Your task to perform on an android device: uninstall "Skype" Image 0: 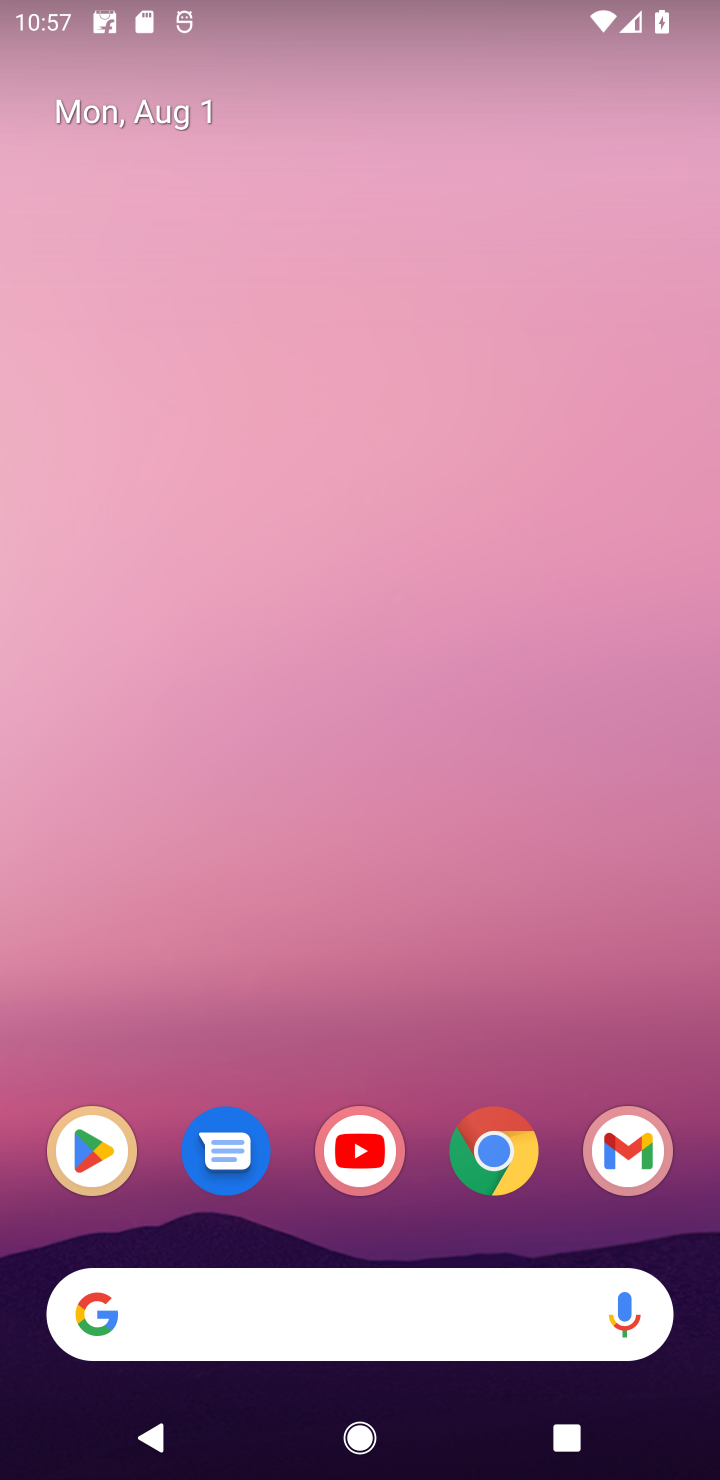
Step 0: click (80, 1158)
Your task to perform on an android device: uninstall "Skype" Image 1: 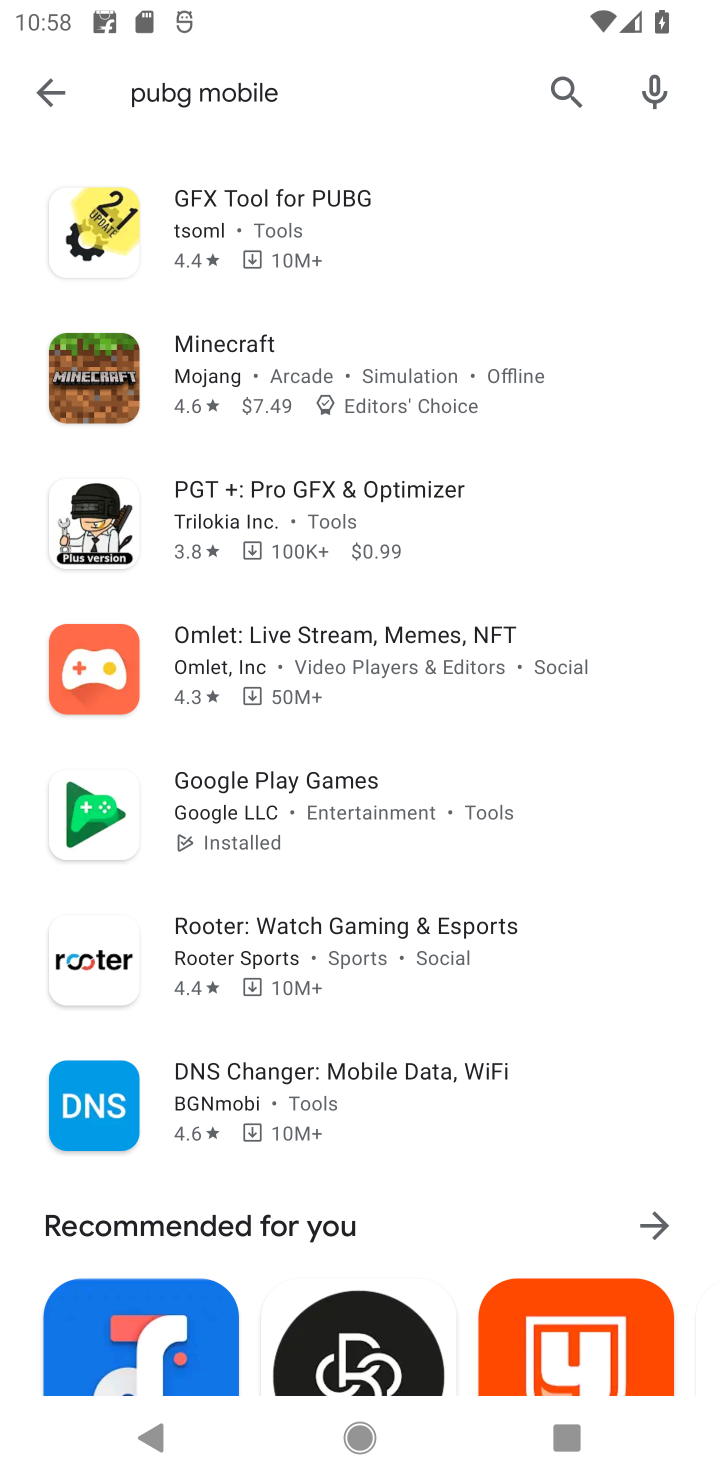
Step 1: click (556, 84)
Your task to perform on an android device: uninstall "Skype" Image 2: 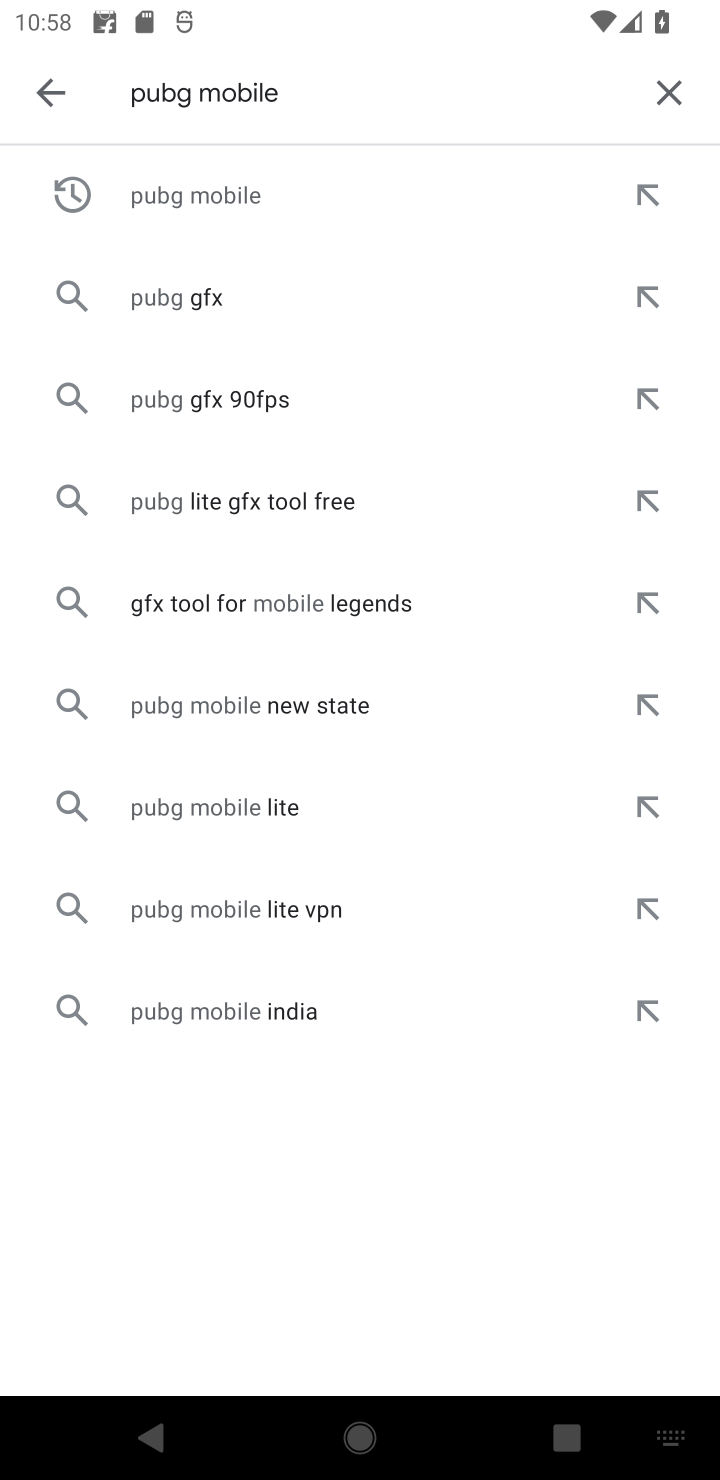
Step 2: click (658, 101)
Your task to perform on an android device: uninstall "Skype" Image 3: 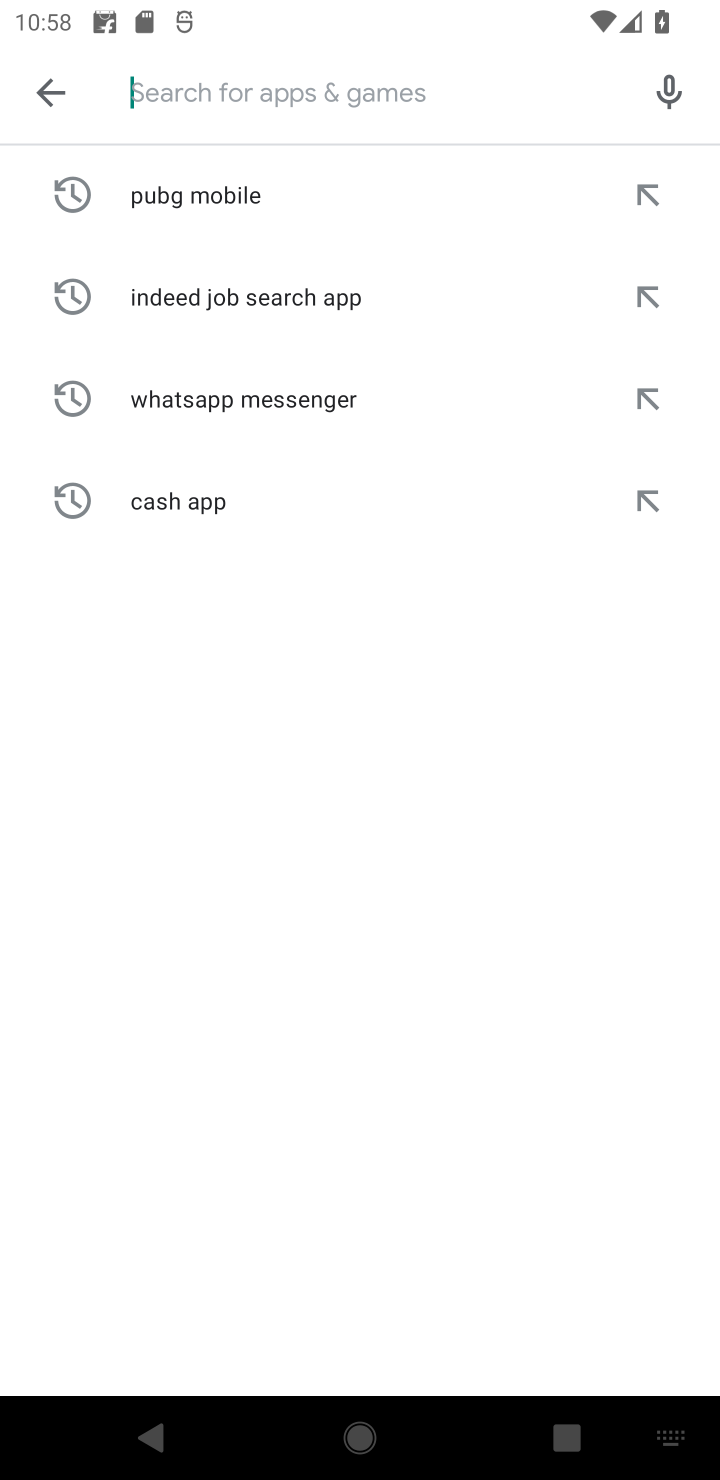
Step 3: type "Skype"
Your task to perform on an android device: uninstall "Skype" Image 4: 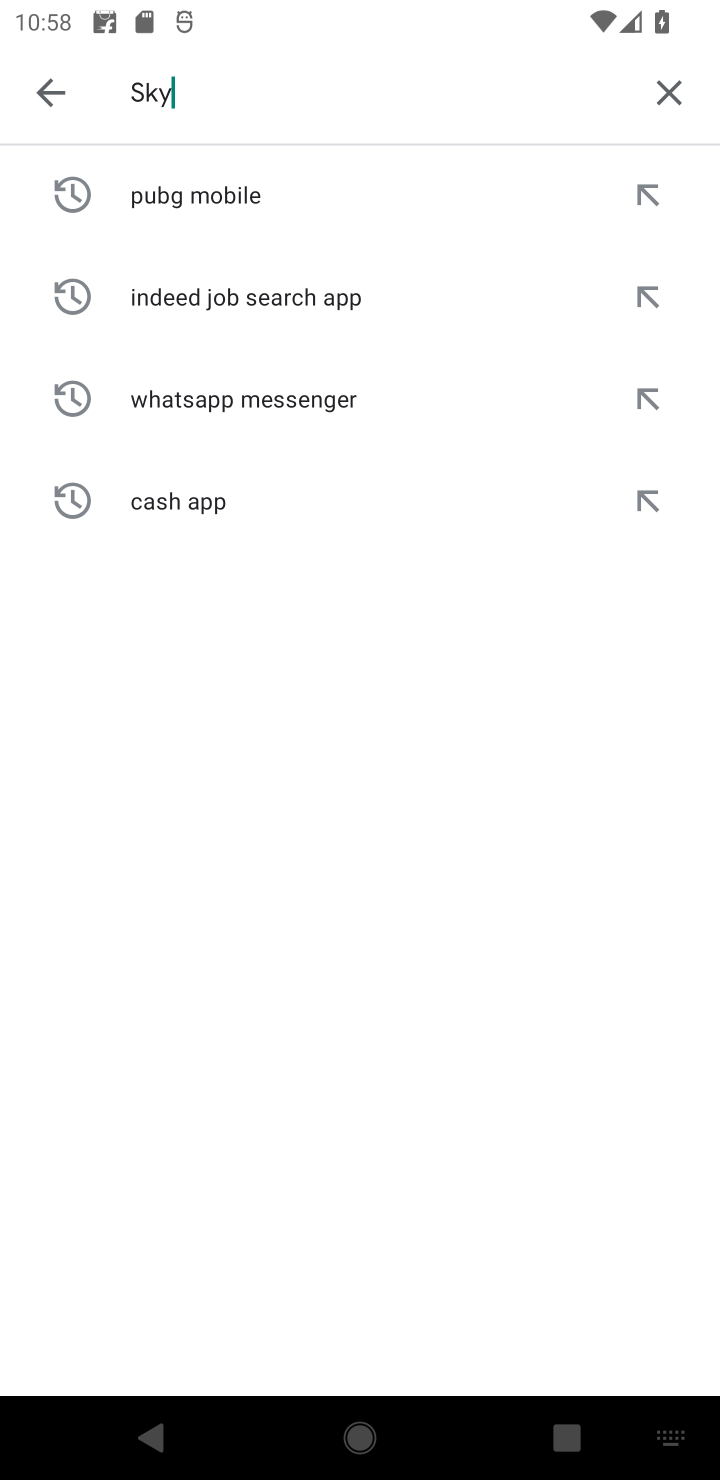
Step 4: type ""
Your task to perform on an android device: uninstall "Skype" Image 5: 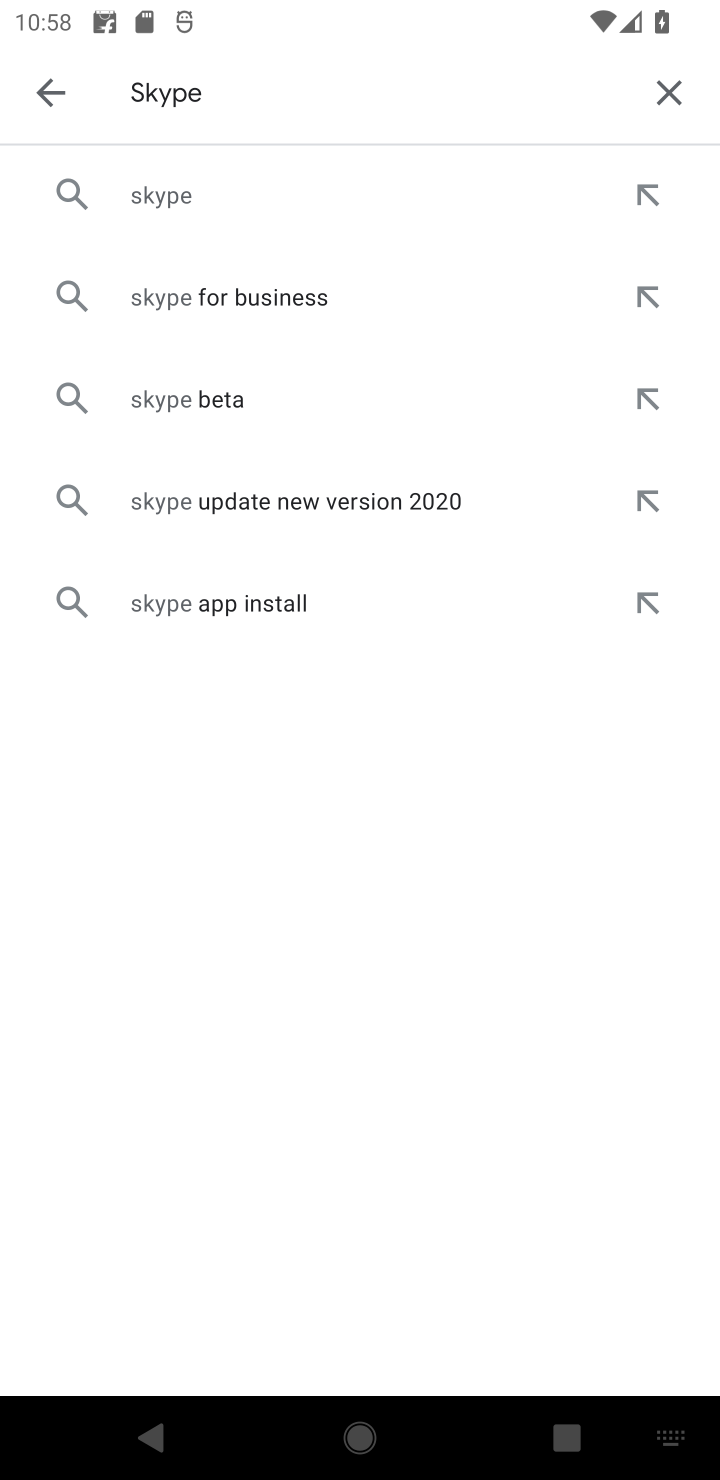
Step 5: click (306, 188)
Your task to perform on an android device: uninstall "Skype" Image 6: 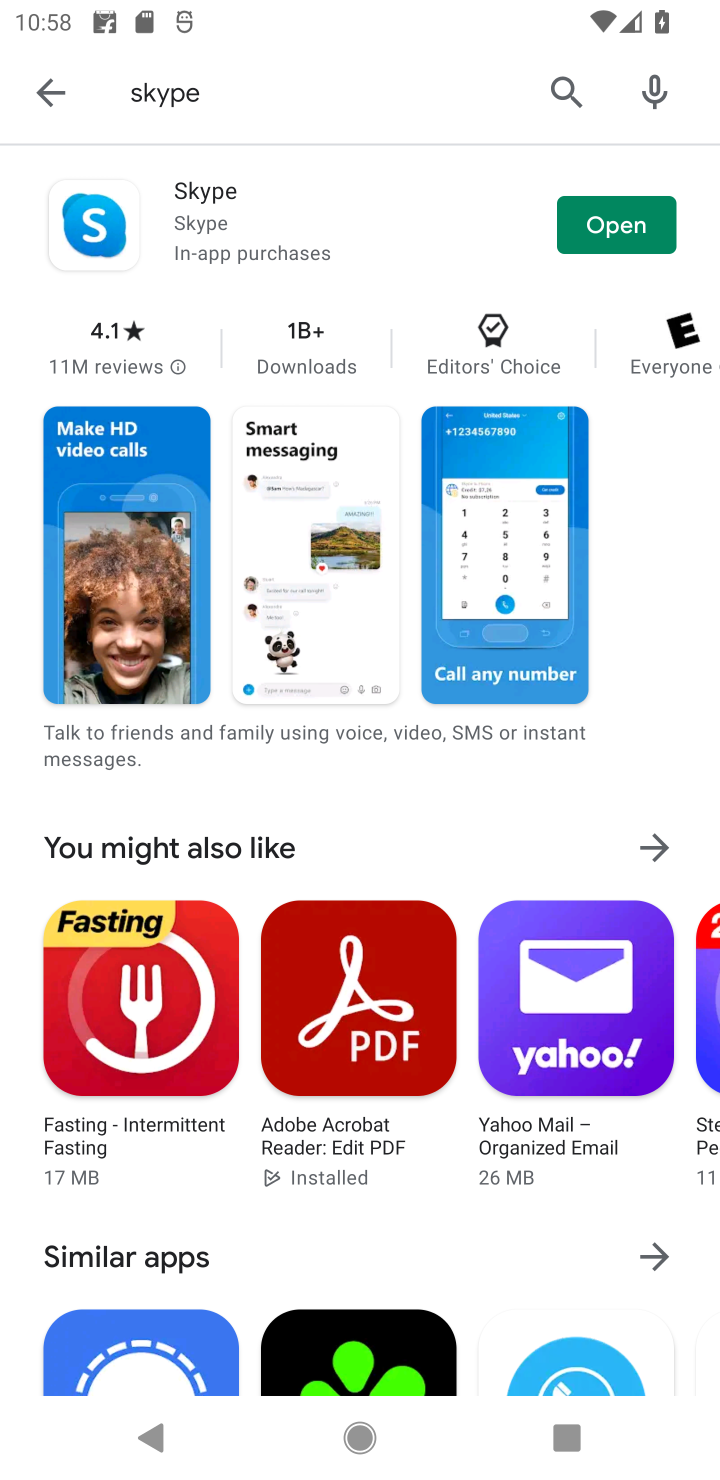
Step 6: click (208, 196)
Your task to perform on an android device: uninstall "Skype" Image 7: 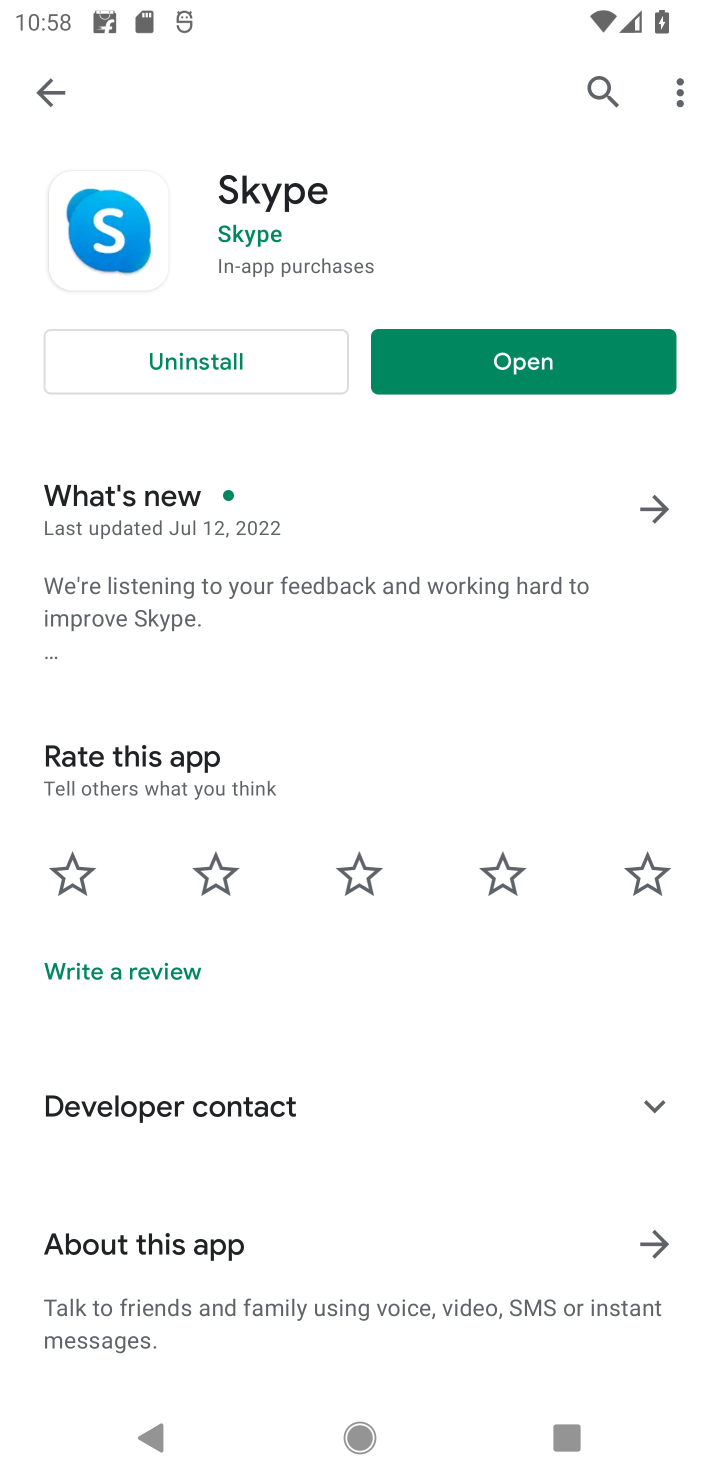
Step 7: click (203, 365)
Your task to perform on an android device: uninstall "Skype" Image 8: 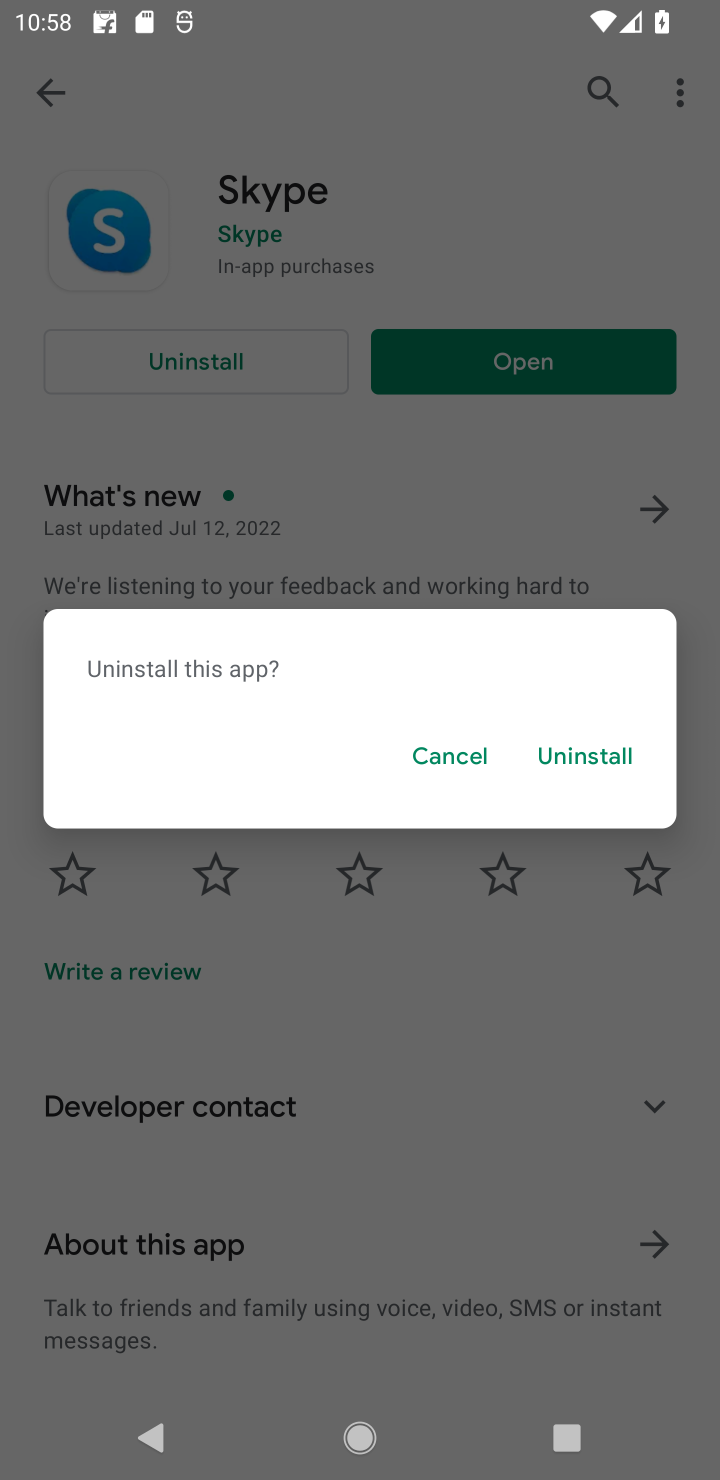
Step 8: click (599, 752)
Your task to perform on an android device: uninstall "Skype" Image 9: 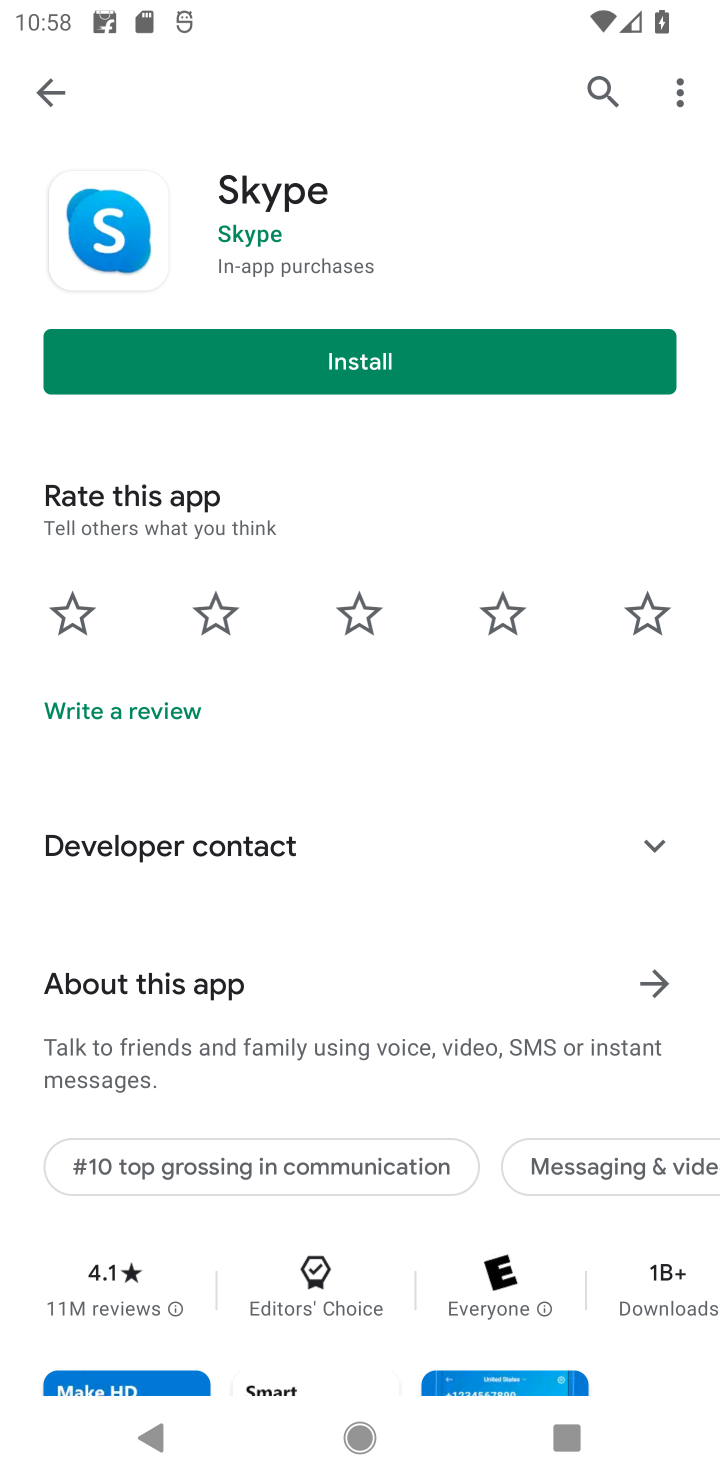
Step 9: task complete